Your task to perform on an android device: What's the weather going to be tomorrow? Image 0: 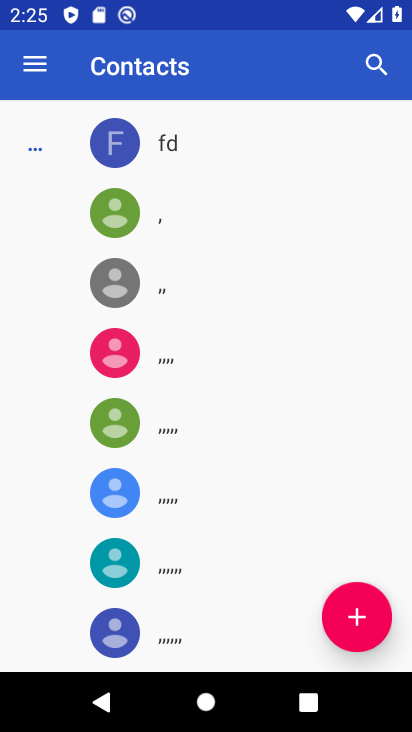
Step 0: press home button
Your task to perform on an android device: What's the weather going to be tomorrow? Image 1: 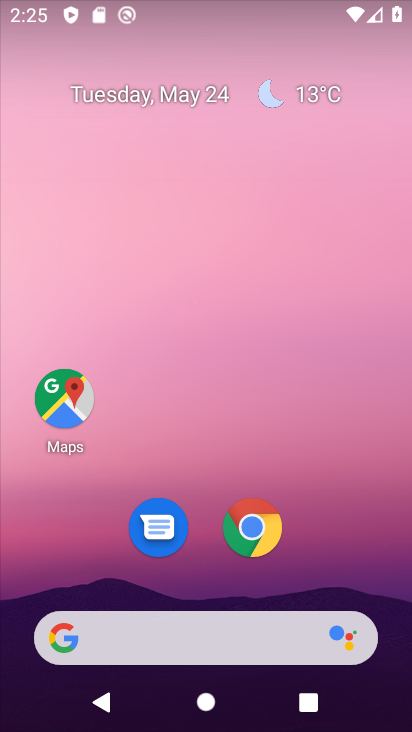
Step 1: drag from (215, 580) to (203, 171)
Your task to perform on an android device: What's the weather going to be tomorrow? Image 2: 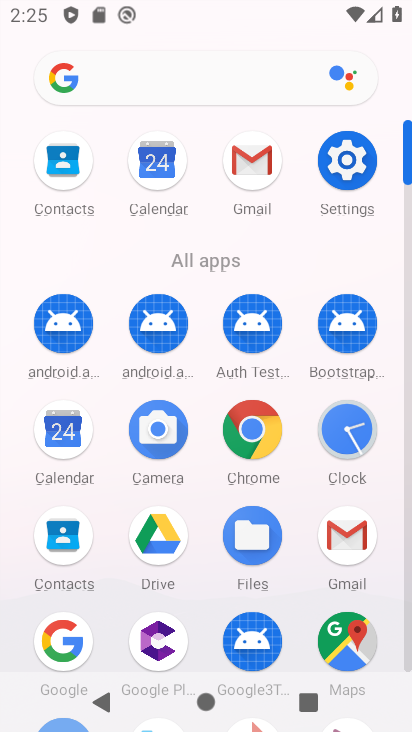
Step 2: click (141, 73)
Your task to perform on an android device: What's the weather going to be tomorrow? Image 3: 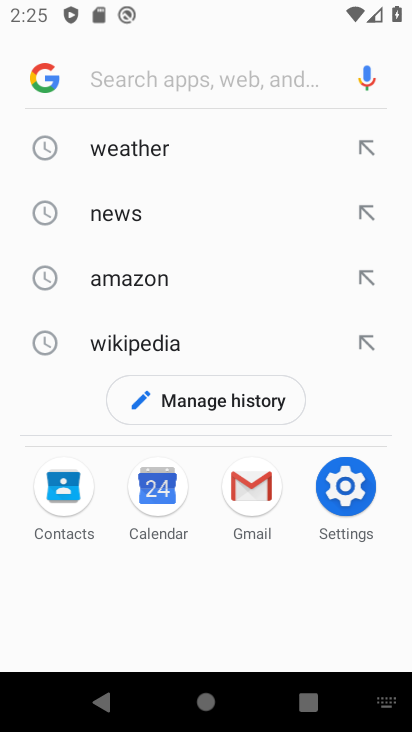
Step 3: type "what's the weather going to be tomorrow"
Your task to perform on an android device: What's the weather going to be tomorrow? Image 4: 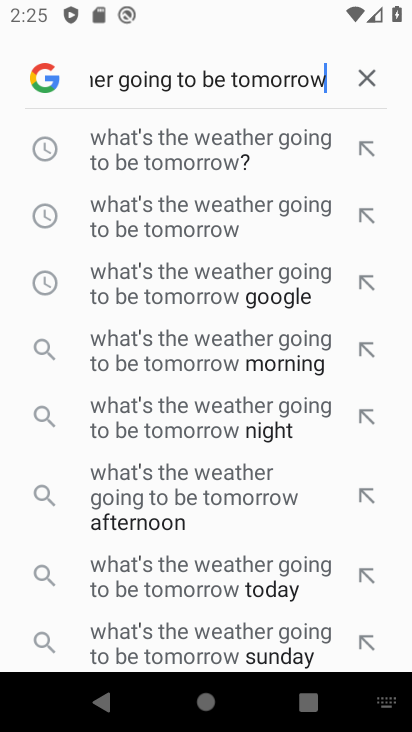
Step 4: click (197, 154)
Your task to perform on an android device: What's the weather going to be tomorrow? Image 5: 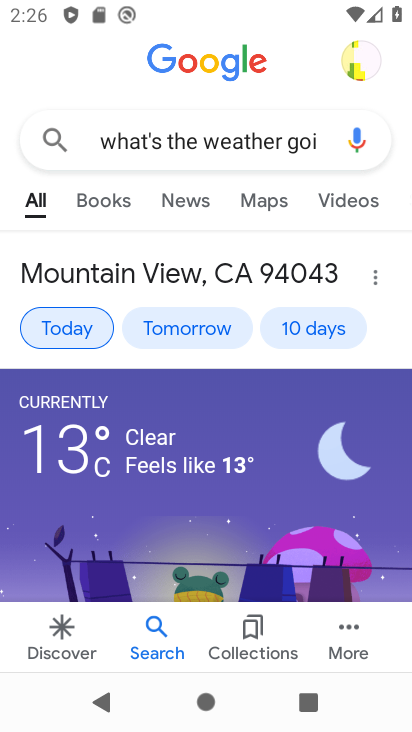
Step 5: click (178, 325)
Your task to perform on an android device: What's the weather going to be tomorrow? Image 6: 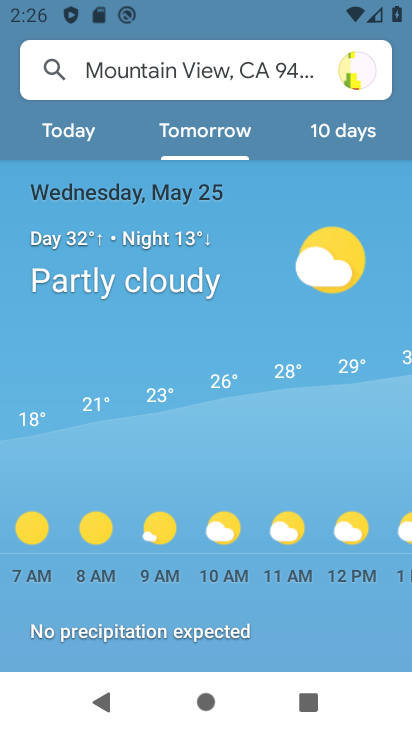
Step 6: task complete